Your task to perform on an android device: create a new album in the google photos Image 0: 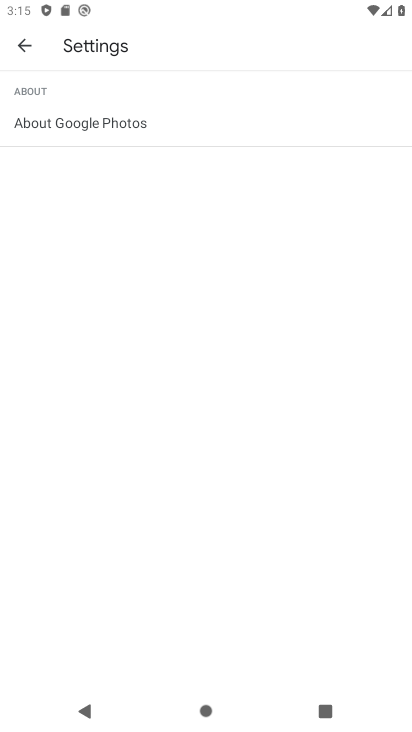
Step 0: press home button
Your task to perform on an android device: create a new album in the google photos Image 1: 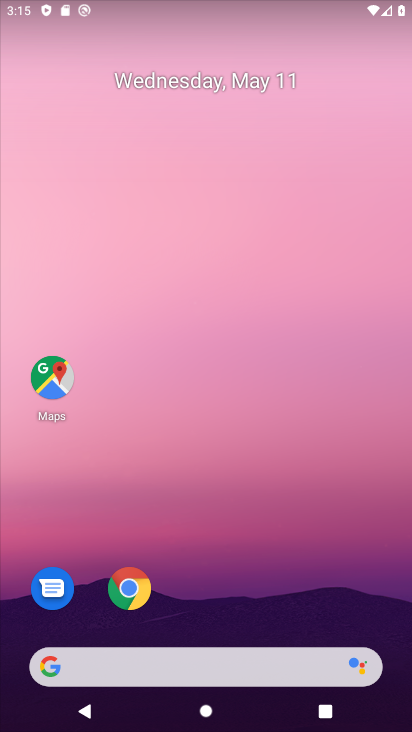
Step 1: drag from (211, 601) to (259, 0)
Your task to perform on an android device: create a new album in the google photos Image 2: 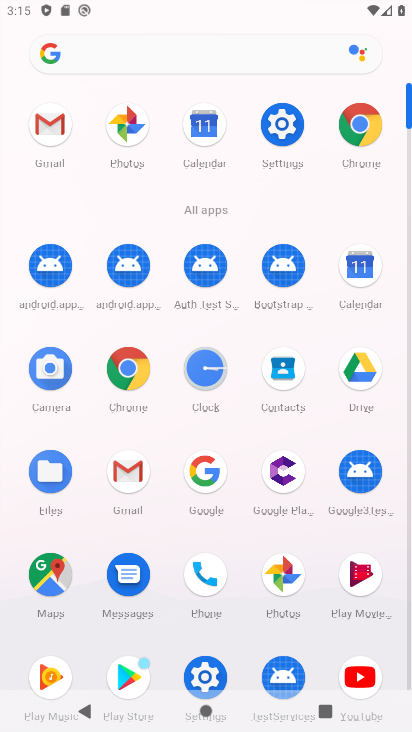
Step 2: click (290, 588)
Your task to perform on an android device: create a new album in the google photos Image 3: 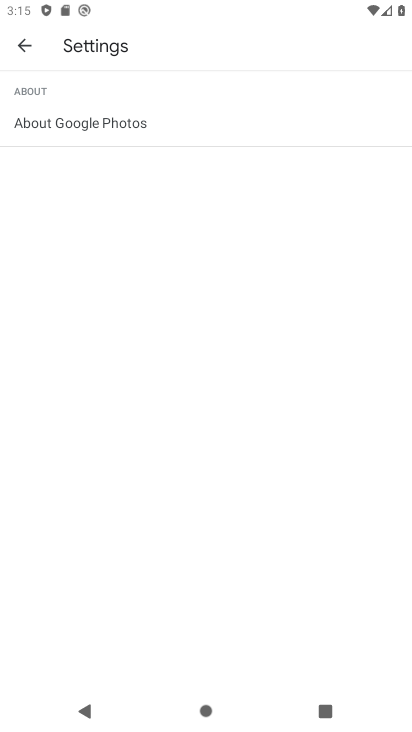
Step 3: click (14, 36)
Your task to perform on an android device: create a new album in the google photos Image 4: 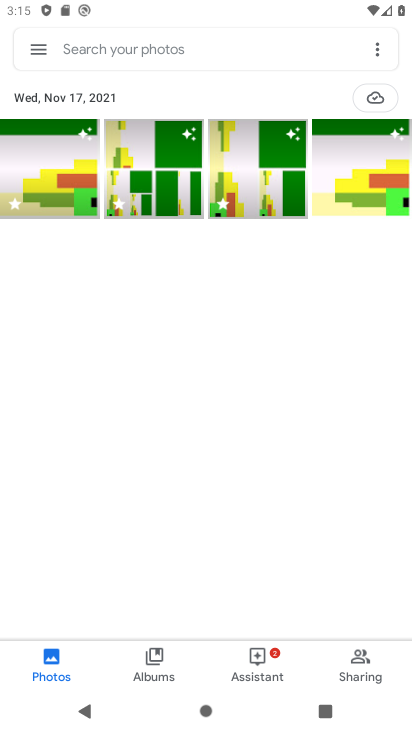
Step 4: click (172, 654)
Your task to perform on an android device: create a new album in the google photos Image 5: 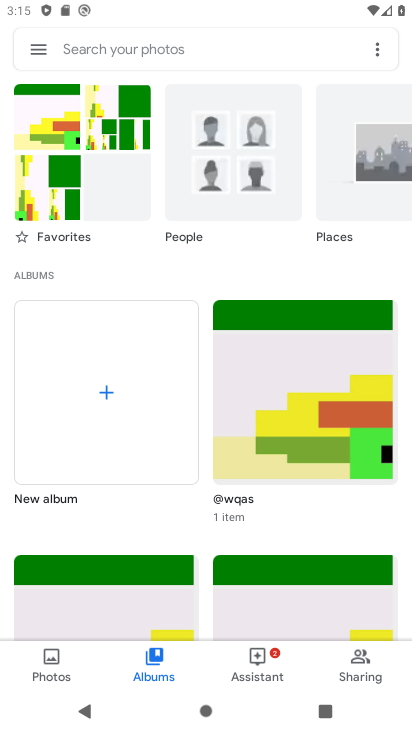
Step 5: click (104, 392)
Your task to perform on an android device: create a new album in the google photos Image 6: 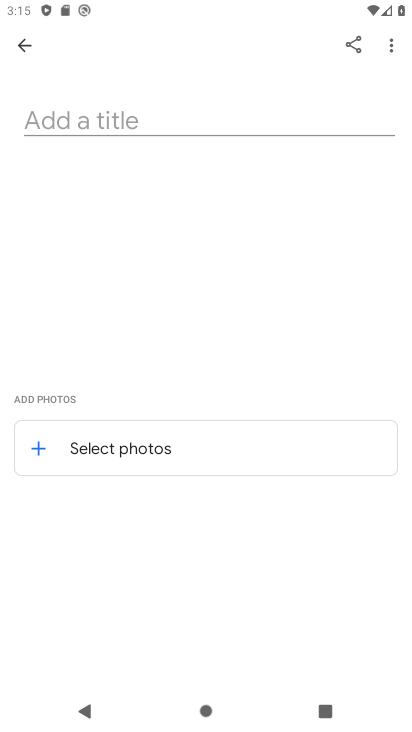
Step 6: click (159, 117)
Your task to perform on an android device: create a new album in the google photos Image 7: 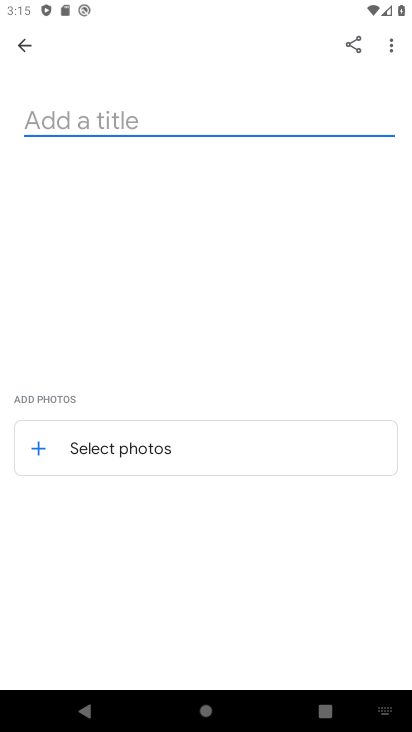
Step 7: type "flask"
Your task to perform on an android device: create a new album in the google photos Image 8: 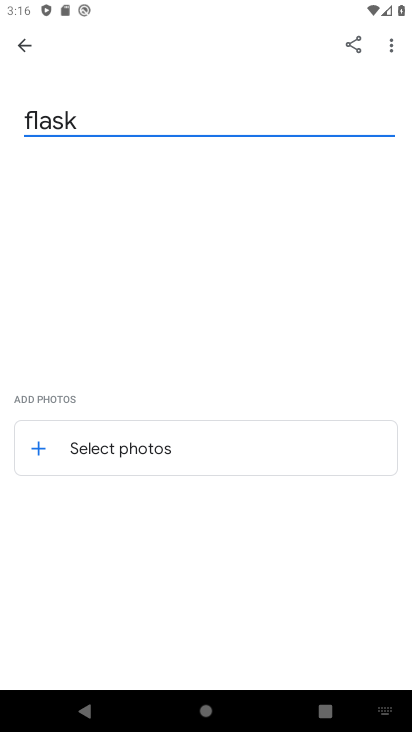
Step 8: click (32, 443)
Your task to perform on an android device: create a new album in the google photos Image 9: 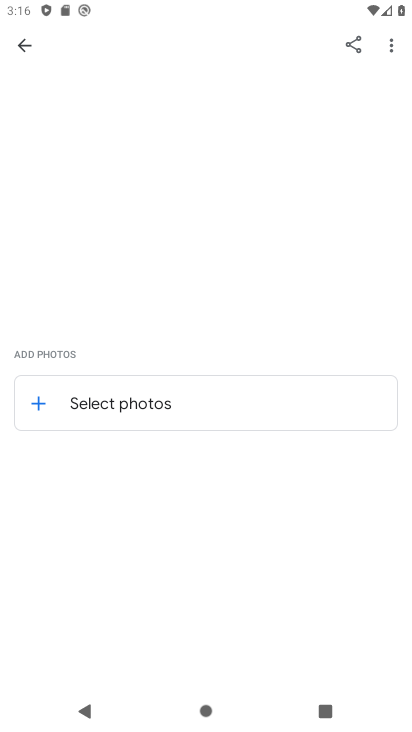
Step 9: click (59, 398)
Your task to perform on an android device: create a new album in the google photos Image 10: 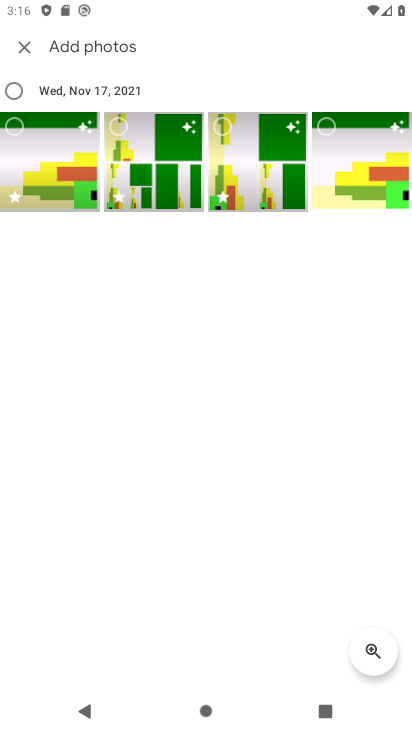
Step 10: click (43, 163)
Your task to perform on an android device: create a new album in the google photos Image 11: 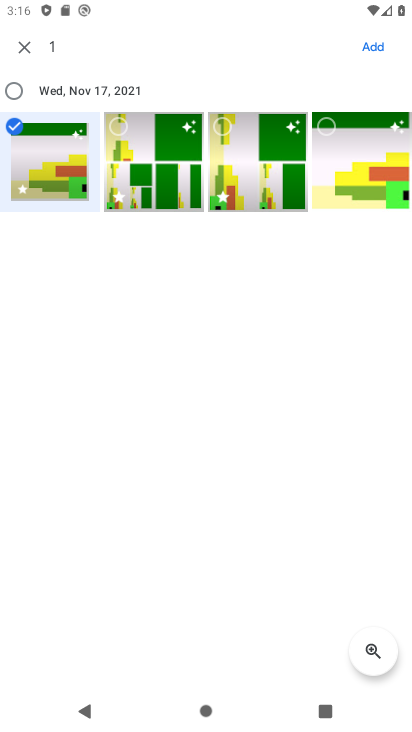
Step 11: click (172, 145)
Your task to perform on an android device: create a new album in the google photos Image 12: 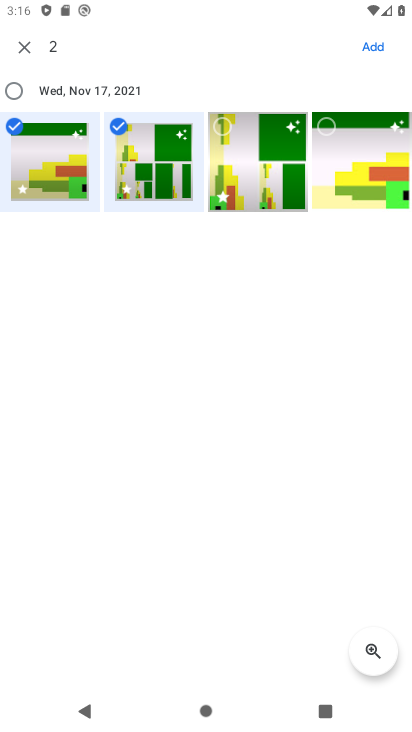
Step 12: click (377, 52)
Your task to perform on an android device: create a new album in the google photos Image 13: 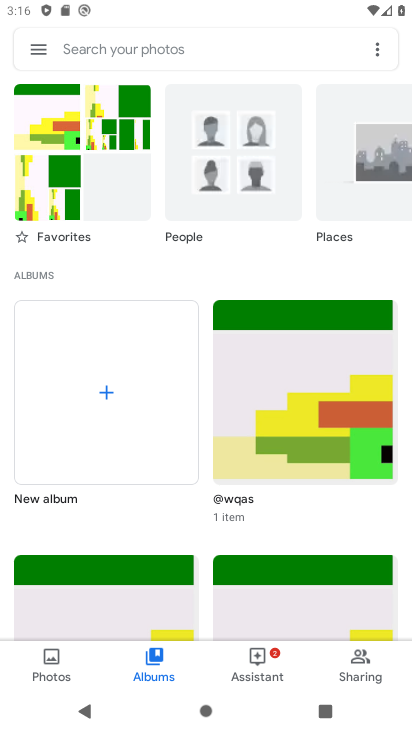
Step 13: click (100, 378)
Your task to perform on an android device: create a new album in the google photos Image 14: 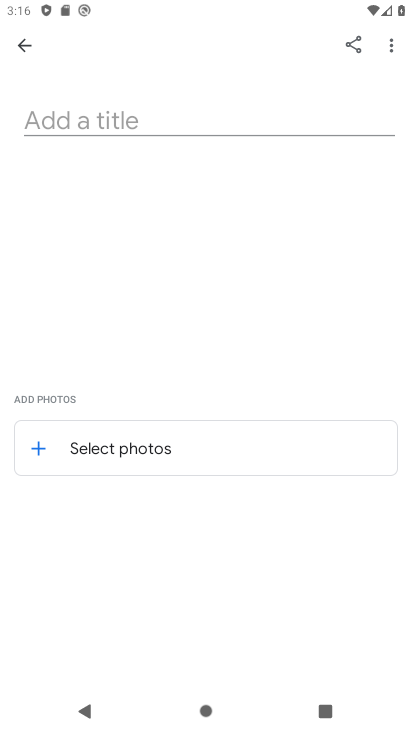
Step 14: click (116, 392)
Your task to perform on an android device: create a new album in the google photos Image 15: 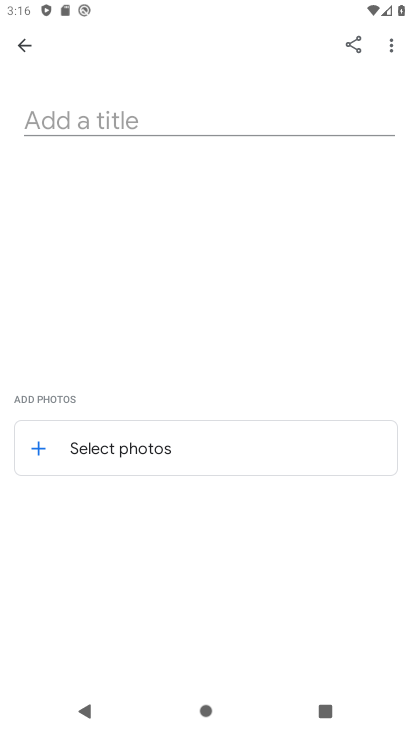
Step 15: click (161, 121)
Your task to perform on an android device: create a new album in the google photos Image 16: 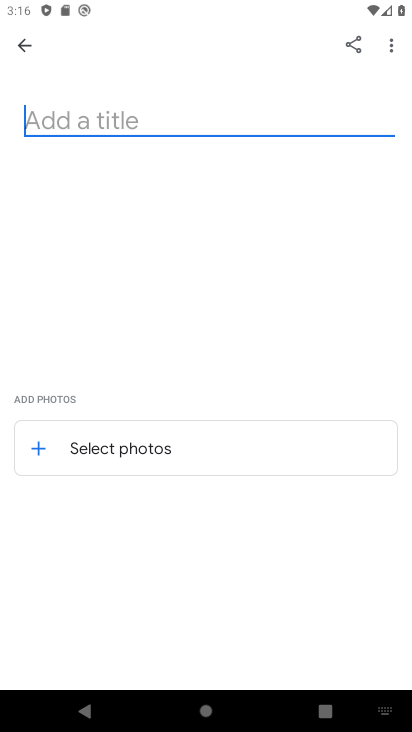
Step 16: type "ffrey"
Your task to perform on an android device: create a new album in the google photos Image 17: 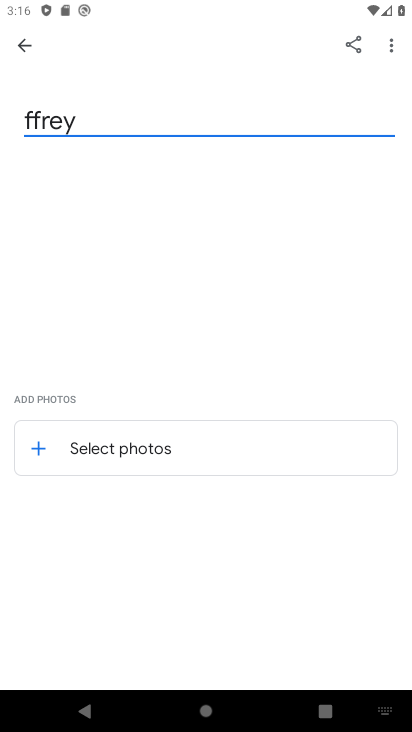
Step 17: click (38, 445)
Your task to perform on an android device: create a new album in the google photos Image 18: 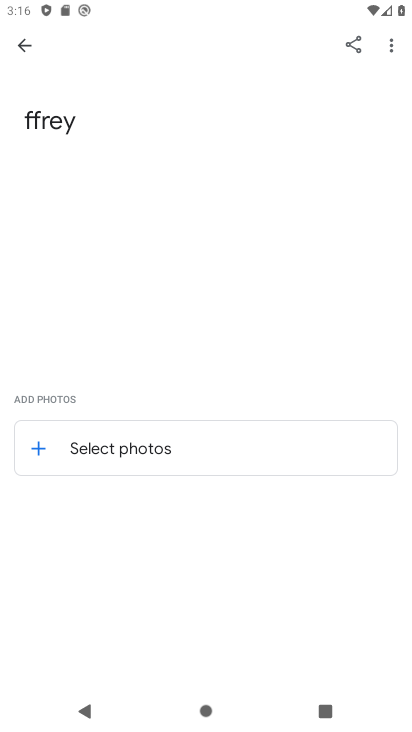
Step 18: click (44, 446)
Your task to perform on an android device: create a new album in the google photos Image 19: 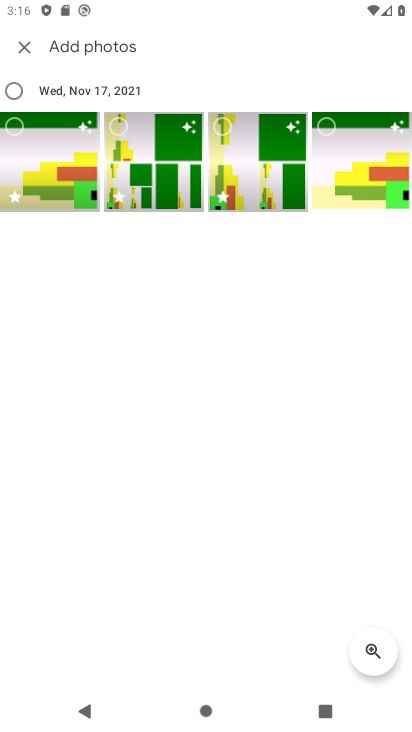
Step 19: click (63, 179)
Your task to perform on an android device: create a new album in the google photos Image 20: 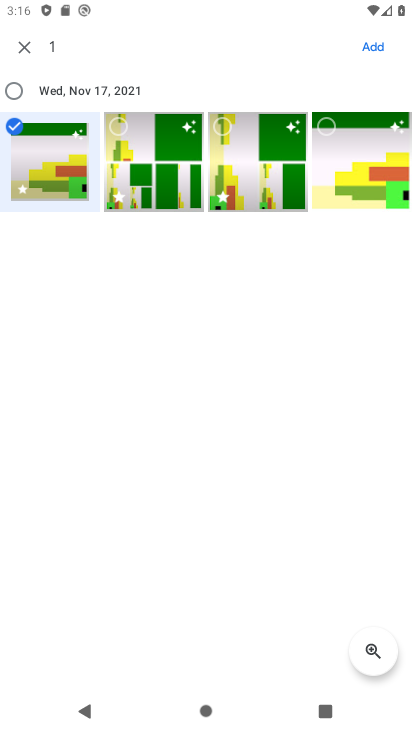
Step 20: click (129, 135)
Your task to perform on an android device: create a new album in the google photos Image 21: 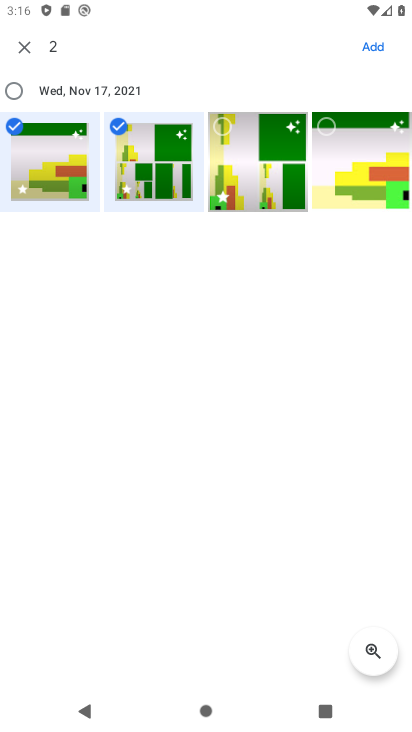
Step 21: click (337, 125)
Your task to perform on an android device: create a new album in the google photos Image 22: 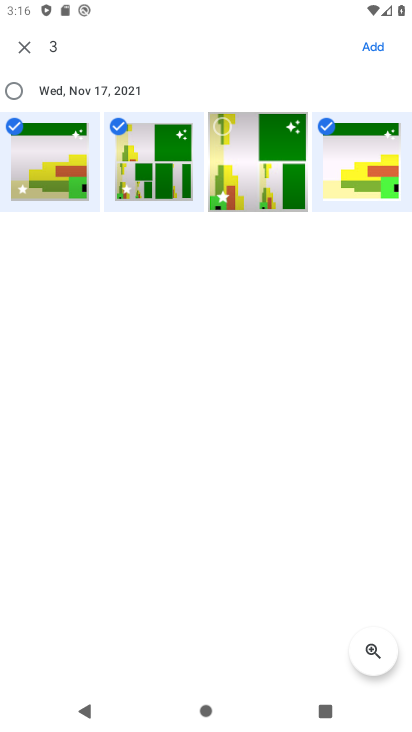
Step 22: click (386, 43)
Your task to perform on an android device: create a new album in the google photos Image 23: 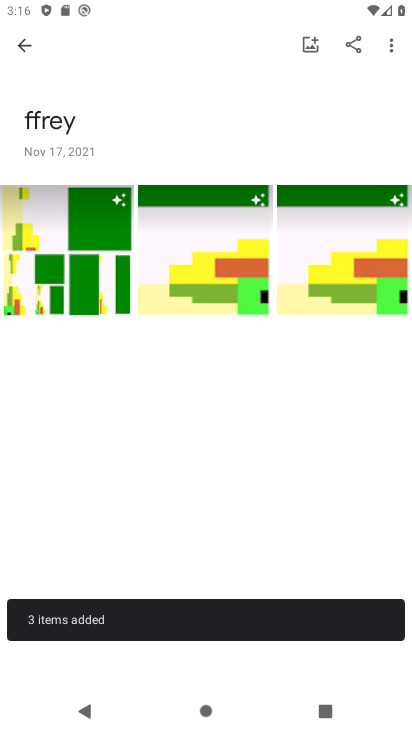
Step 23: task complete